Your task to perform on an android device: make emails show in primary in the gmail app Image 0: 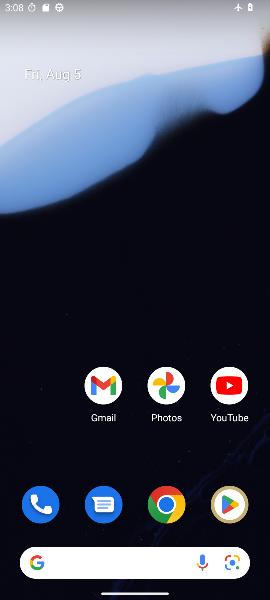
Step 0: click (99, 383)
Your task to perform on an android device: make emails show in primary in the gmail app Image 1: 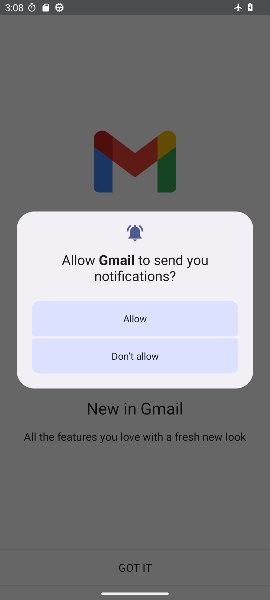
Step 1: click (138, 318)
Your task to perform on an android device: make emails show in primary in the gmail app Image 2: 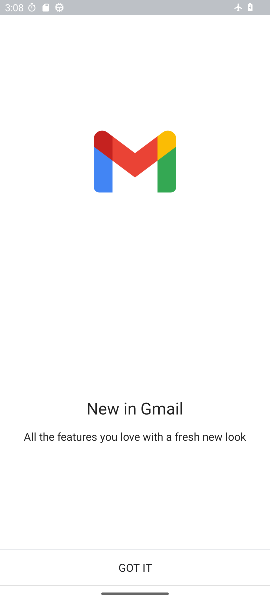
Step 2: click (122, 565)
Your task to perform on an android device: make emails show in primary in the gmail app Image 3: 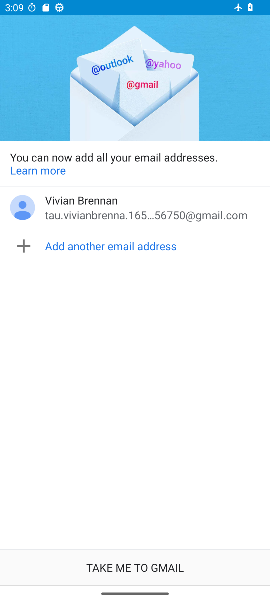
Step 3: click (119, 568)
Your task to perform on an android device: make emails show in primary in the gmail app Image 4: 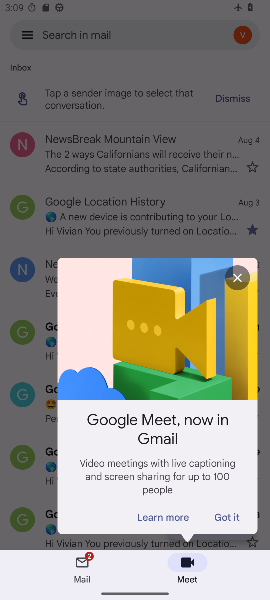
Step 4: click (240, 518)
Your task to perform on an android device: make emails show in primary in the gmail app Image 5: 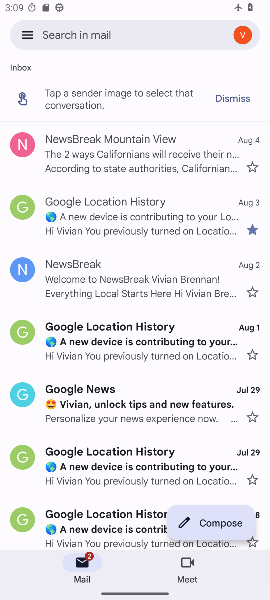
Step 5: click (35, 36)
Your task to perform on an android device: make emails show in primary in the gmail app Image 6: 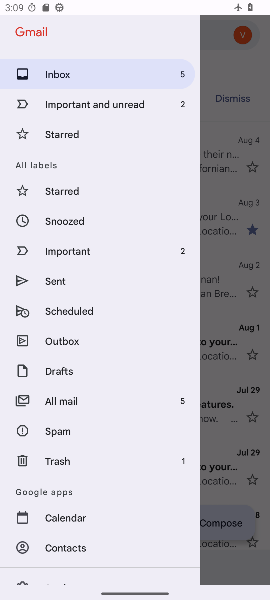
Step 6: click (231, 51)
Your task to perform on an android device: make emails show in primary in the gmail app Image 7: 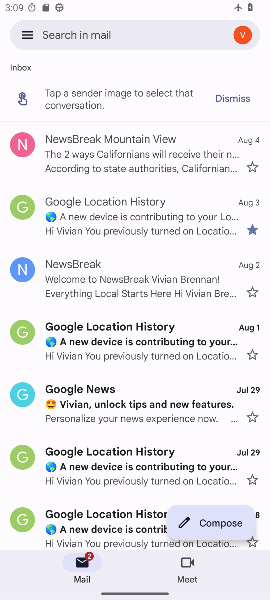
Step 7: task complete